Your task to perform on an android device: turn off wifi Image 0: 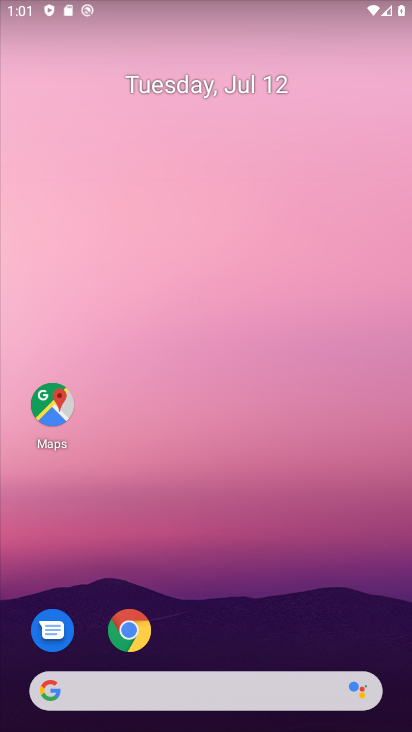
Step 0: drag from (292, 625) to (220, 74)
Your task to perform on an android device: turn off wifi Image 1: 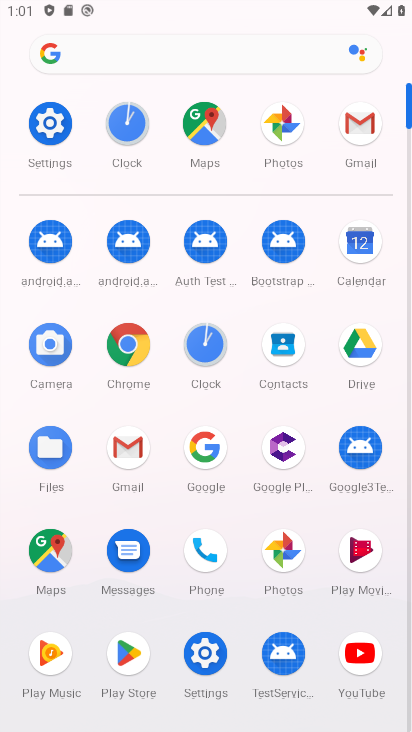
Step 1: click (204, 654)
Your task to perform on an android device: turn off wifi Image 2: 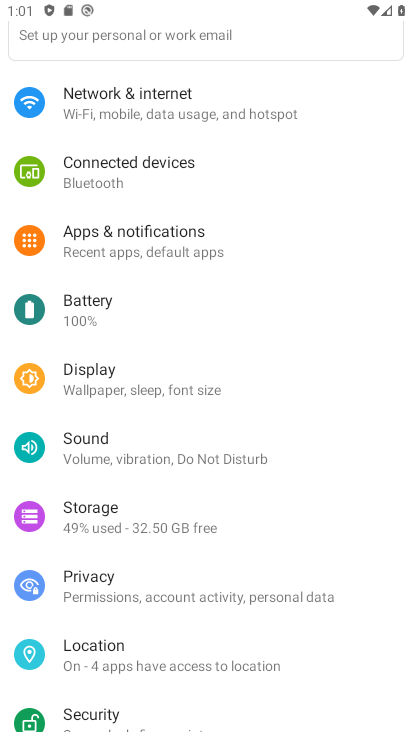
Step 2: click (103, 96)
Your task to perform on an android device: turn off wifi Image 3: 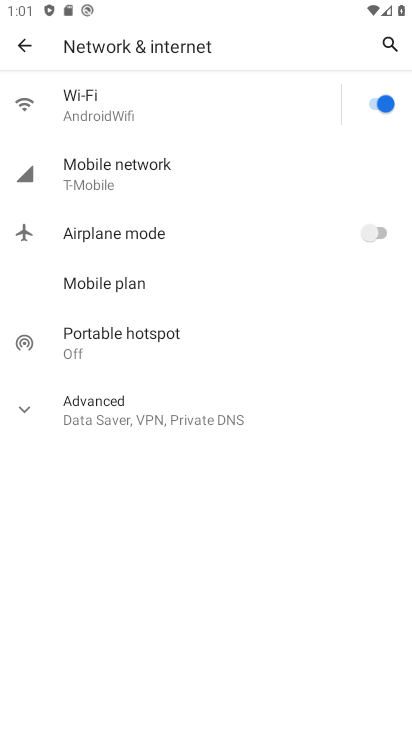
Step 3: click (371, 104)
Your task to perform on an android device: turn off wifi Image 4: 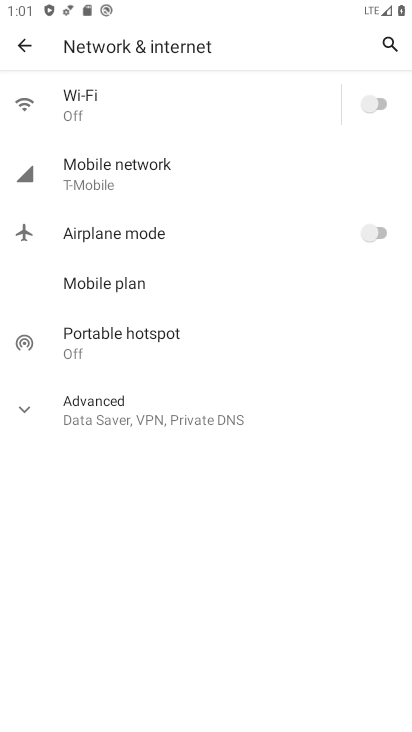
Step 4: task complete